Your task to perform on an android device: Search for pizza restaurants on Maps Image 0: 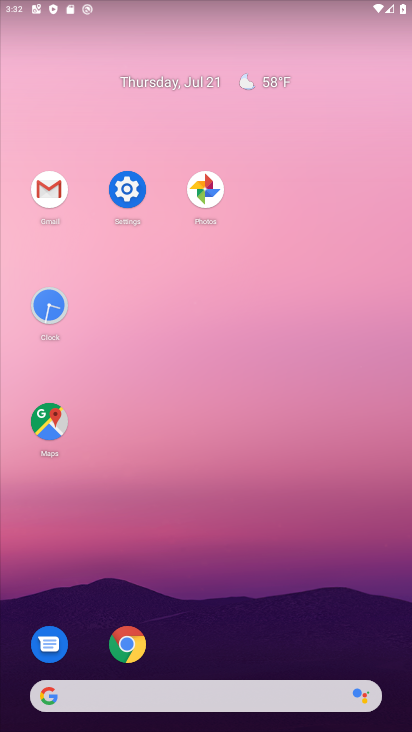
Step 0: click (48, 429)
Your task to perform on an android device: Search for pizza restaurants on Maps Image 1: 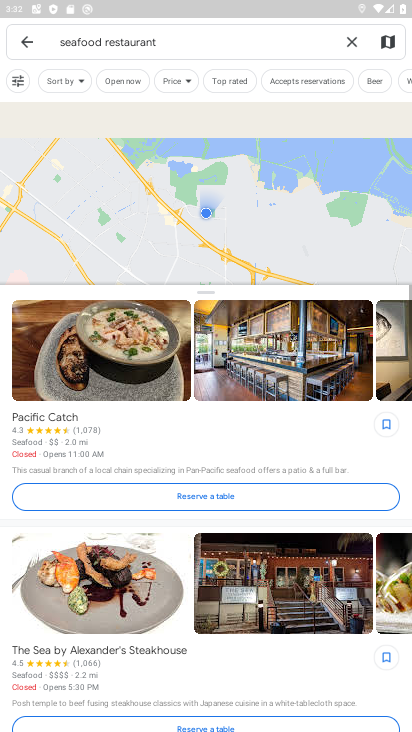
Step 1: click (241, 34)
Your task to perform on an android device: Search for pizza restaurants on Maps Image 2: 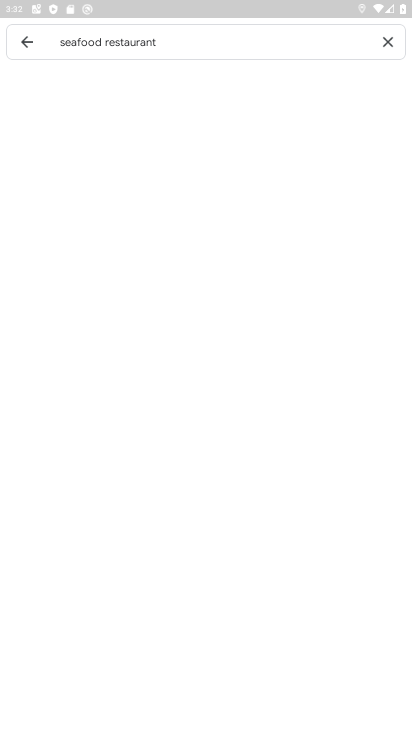
Step 2: click (337, 37)
Your task to perform on an android device: Search for pizza restaurants on Maps Image 3: 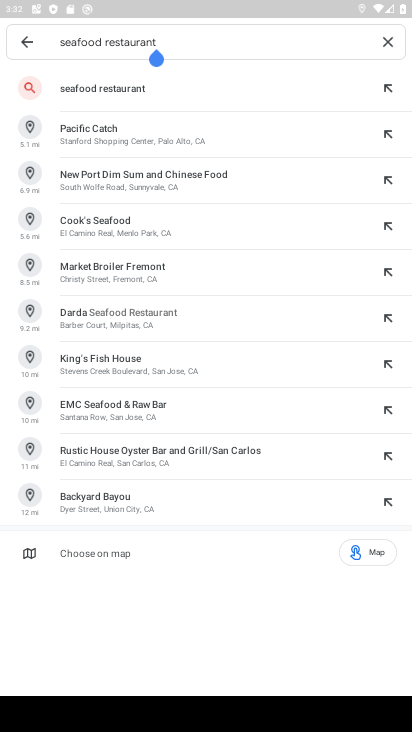
Step 3: click (382, 39)
Your task to perform on an android device: Search for pizza restaurants on Maps Image 4: 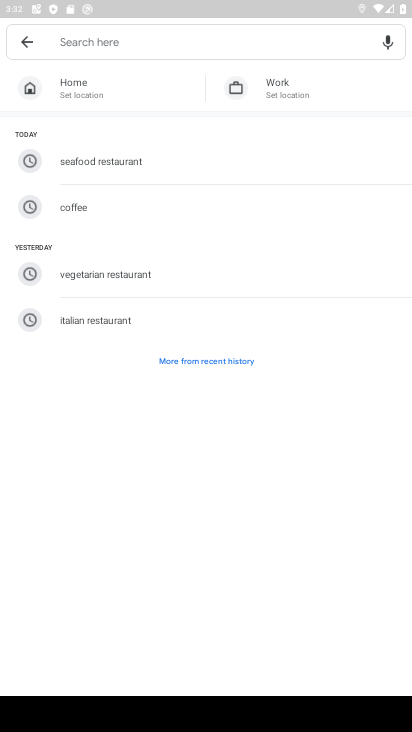
Step 4: type "pizza restaurants"
Your task to perform on an android device: Search for pizza restaurants on Maps Image 5: 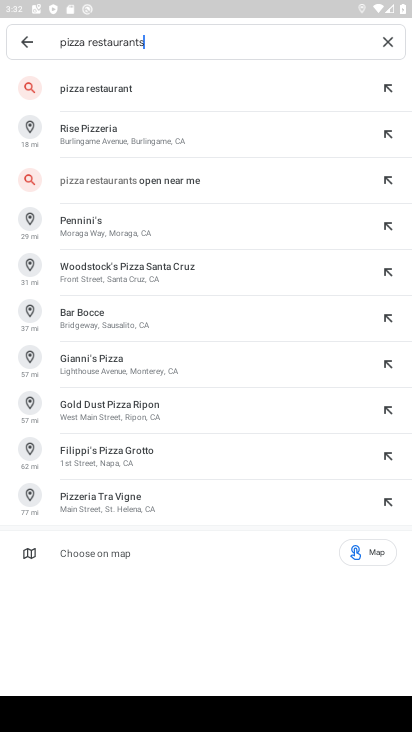
Step 5: click (142, 84)
Your task to perform on an android device: Search for pizza restaurants on Maps Image 6: 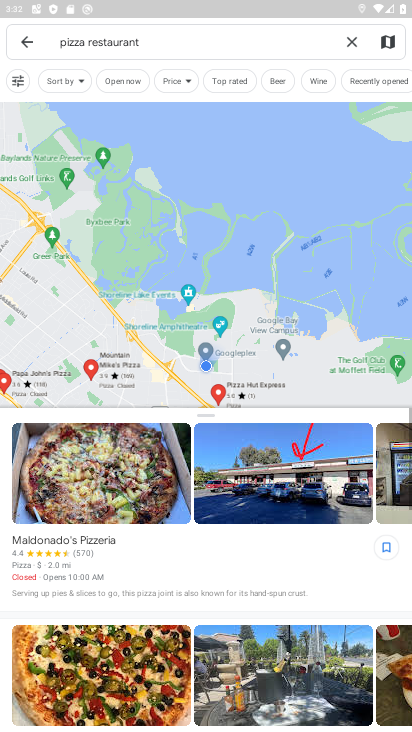
Step 6: task complete